Your task to perform on an android device: open the mobile data screen to see how much data has been used Image 0: 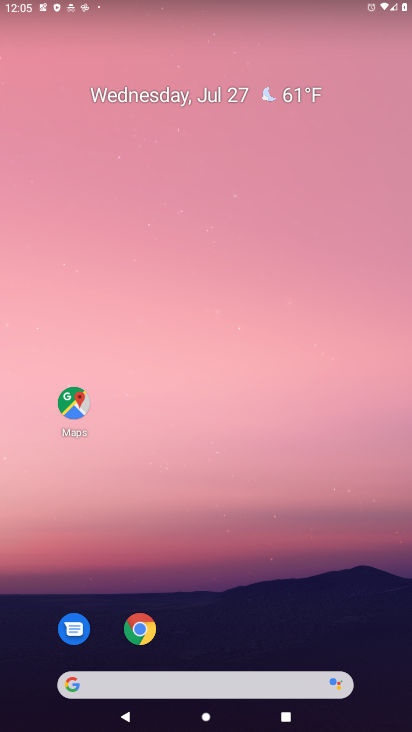
Step 0: click (165, 638)
Your task to perform on an android device: open the mobile data screen to see how much data has been used Image 1: 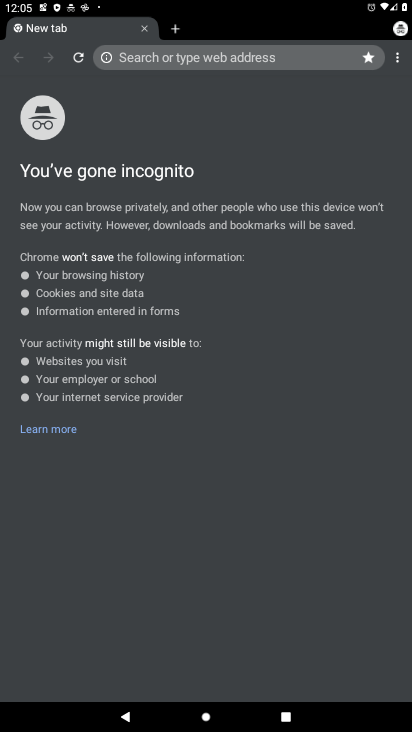
Step 1: click (392, 54)
Your task to perform on an android device: open the mobile data screen to see how much data has been used Image 2: 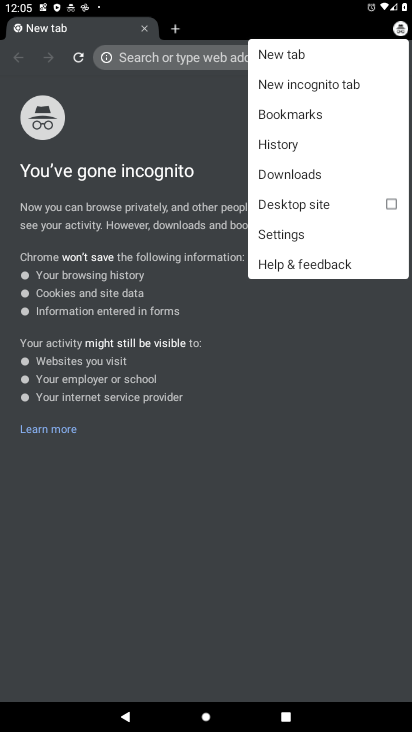
Step 2: click (327, 249)
Your task to perform on an android device: open the mobile data screen to see how much data has been used Image 3: 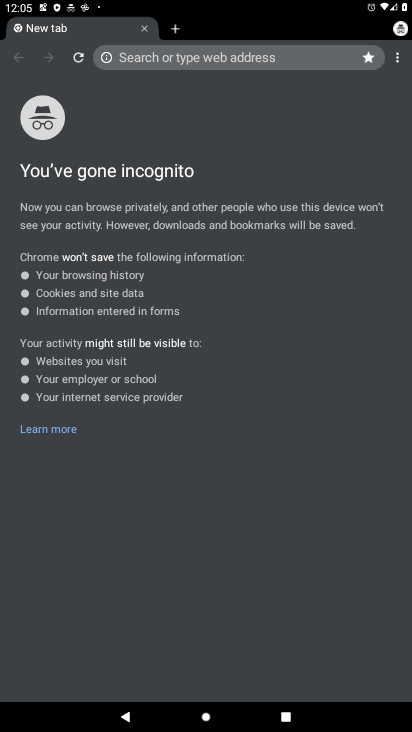
Step 3: click (322, 246)
Your task to perform on an android device: open the mobile data screen to see how much data has been used Image 4: 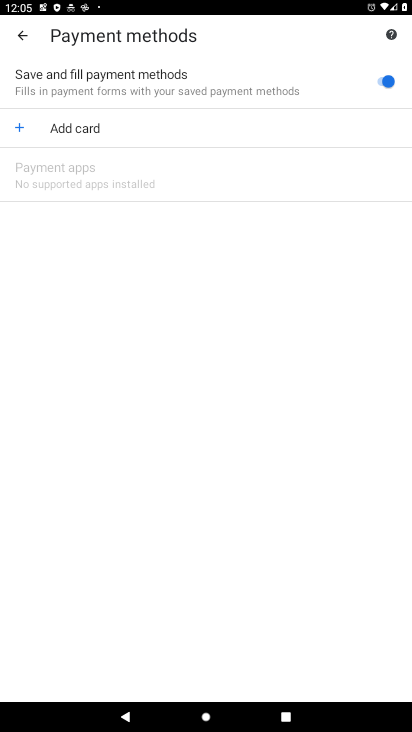
Step 4: click (23, 49)
Your task to perform on an android device: open the mobile data screen to see how much data has been used Image 5: 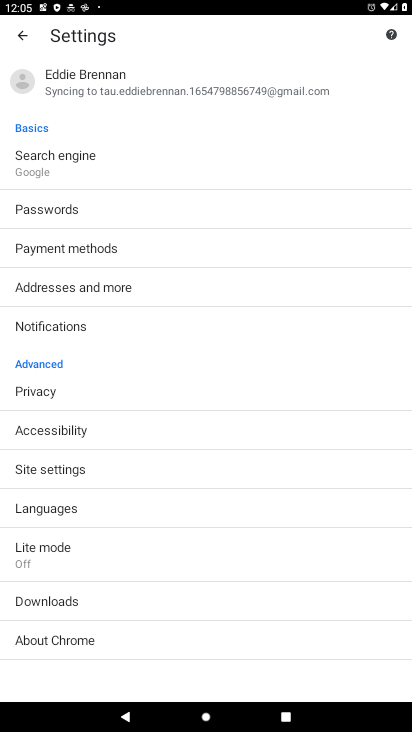
Step 5: click (109, 547)
Your task to perform on an android device: open the mobile data screen to see how much data has been used Image 6: 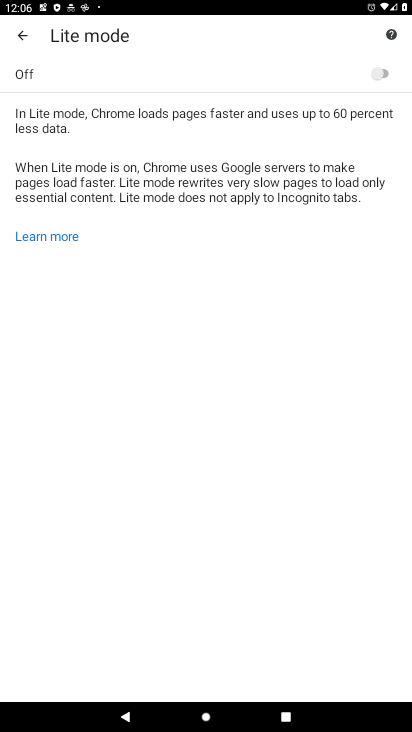
Step 6: task complete